Your task to perform on an android device: turn off translation in the chrome app Image 0: 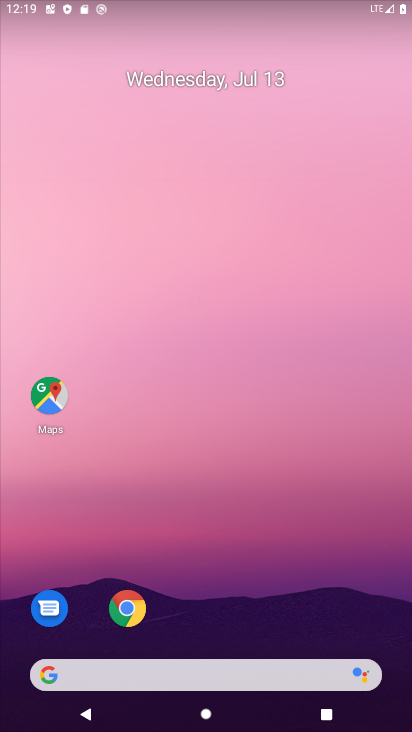
Step 0: click (141, 600)
Your task to perform on an android device: turn off translation in the chrome app Image 1: 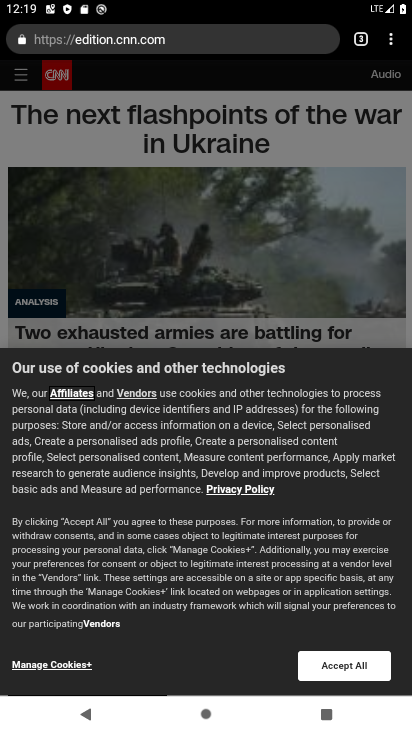
Step 1: drag from (397, 33) to (236, 475)
Your task to perform on an android device: turn off translation in the chrome app Image 2: 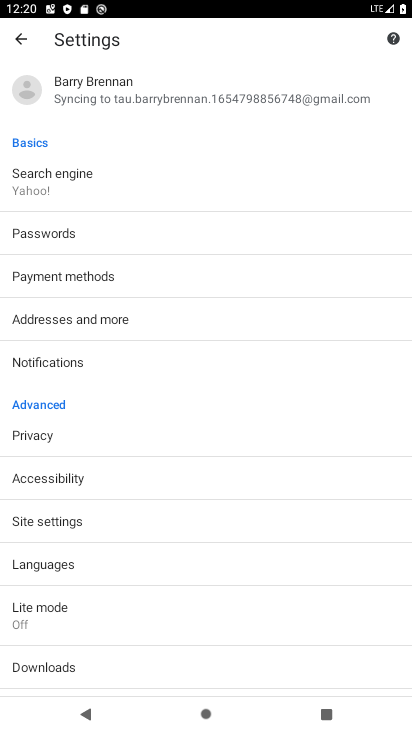
Step 2: click (43, 569)
Your task to perform on an android device: turn off translation in the chrome app Image 3: 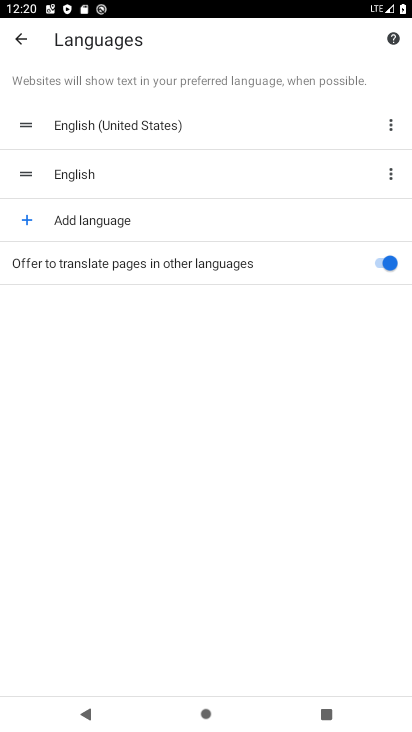
Step 3: click (380, 260)
Your task to perform on an android device: turn off translation in the chrome app Image 4: 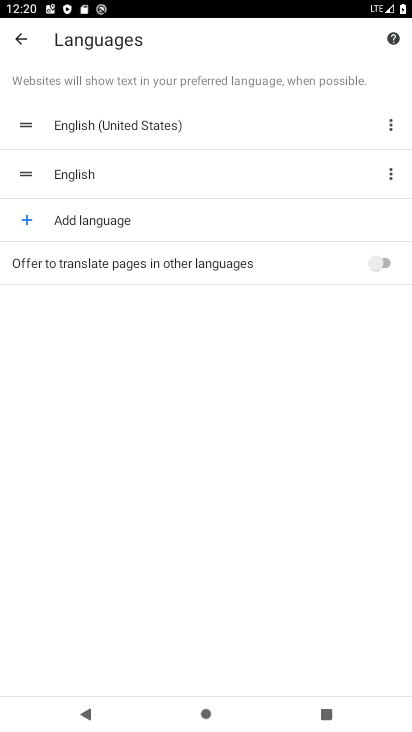
Step 4: task complete